Your task to perform on an android device: check storage Image 0: 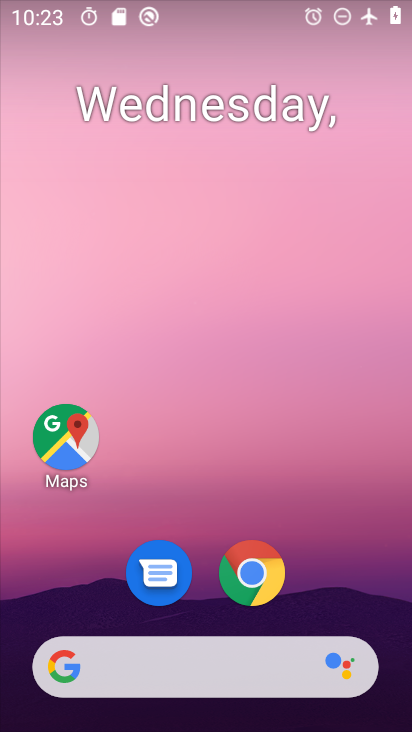
Step 0: drag from (317, 553) to (348, 241)
Your task to perform on an android device: check storage Image 1: 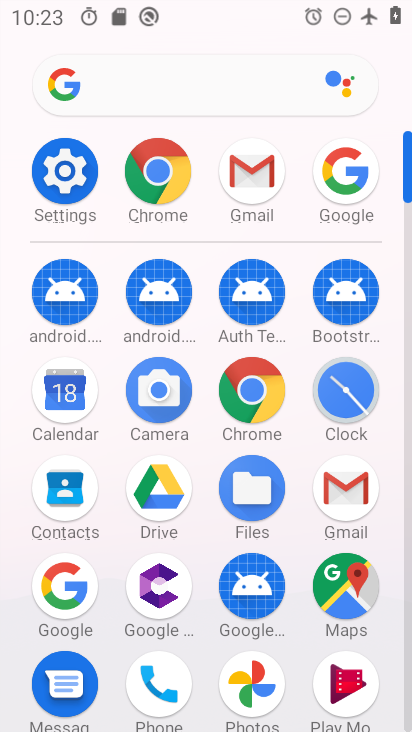
Step 1: click (87, 217)
Your task to perform on an android device: check storage Image 2: 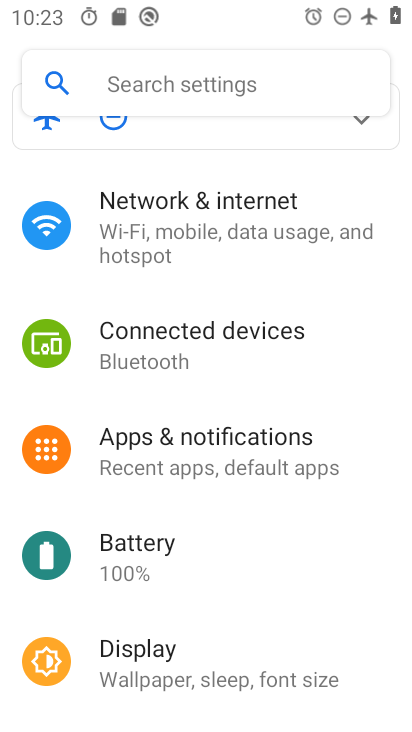
Step 2: drag from (175, 618) to (181, 343)
Your task to perform on an android device: check storage Image 3: 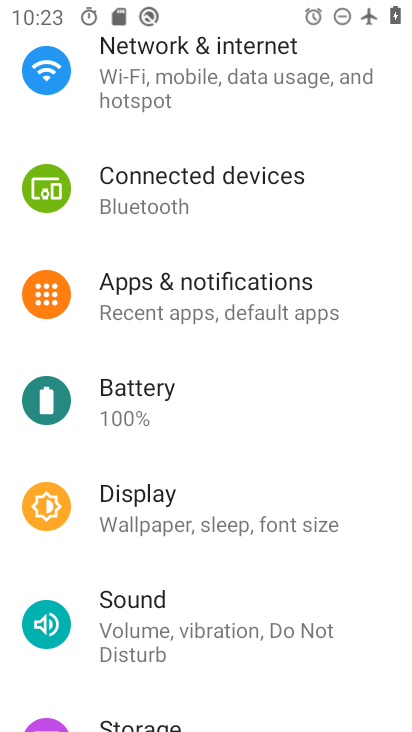
Step 3: drag from (196, 652) to (248, 330)
Your task to perform on an android device: check storage Image 4: 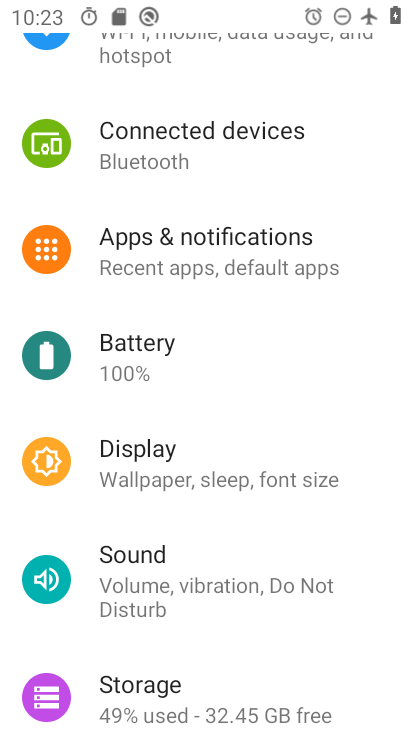
Step 4: click (212, 700)
Your task to perform on an android device: check storage Image 5: 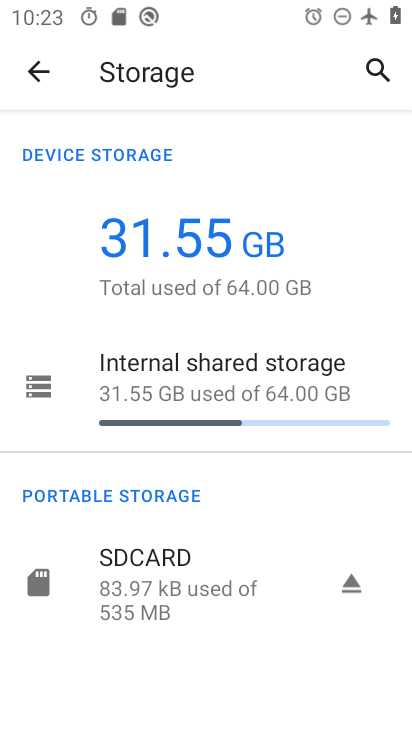
Step 5: click (297, 419)
Your task to perform on an android device: check storage Image 6: 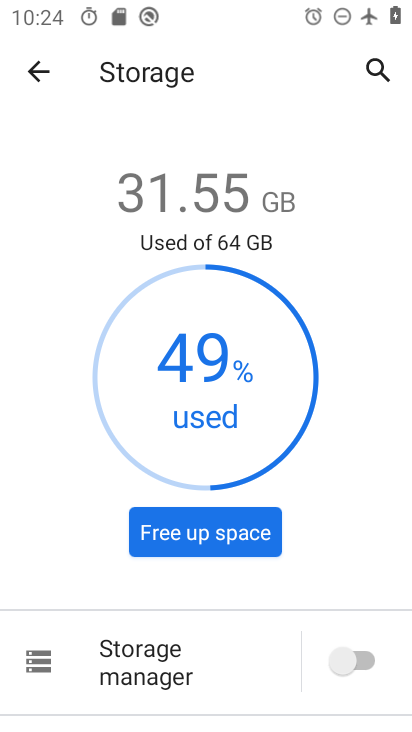
Step 6: task complete